Your task to perform on an android device: install app "Roku - Official Remote Control" Image 0: 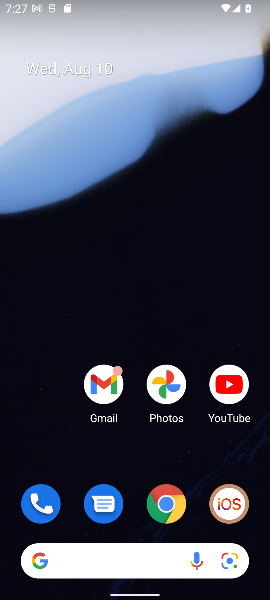
Step 0: drag from (148, 549) to (84, 8)
Your task to perform on an android device: install app "Roku - Official Remote Control" Image 1: 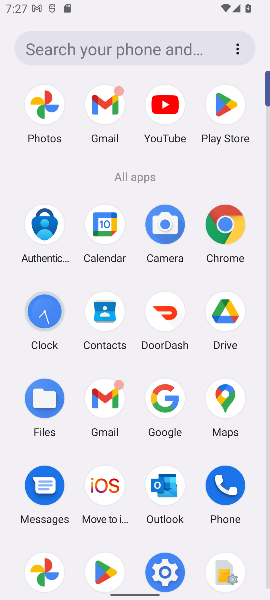
Step 1: click (99, 567)
Your task to perform on an android device: install app "Roku - Official Remote Control" Image 2: 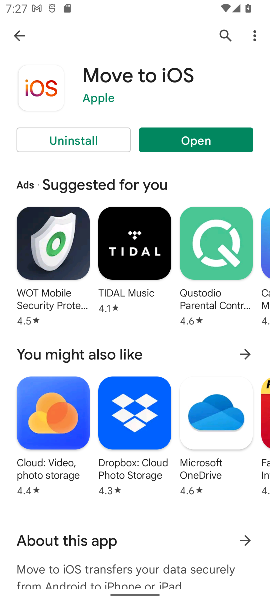
Step 2: click (223, 37)
Your task to perform on an android device: install app "Roku - Official Remote Control" Image 3: 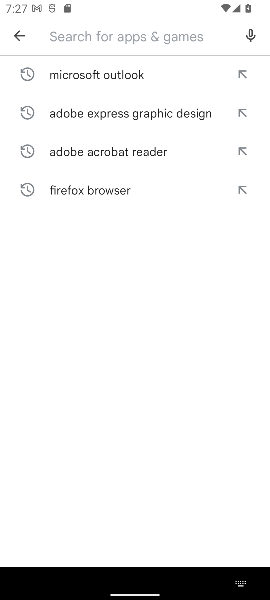
Step 3: type ""
Your task to perform on an android device: install app "Roku - Official Remote Control" Image 4: 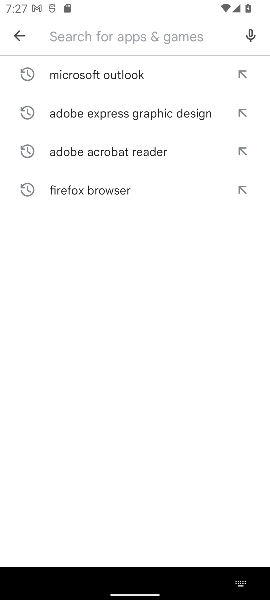
Step 4: type "roku"
Your task to perform on an android device: install app "Roku - Official Remote Control" Image 5: 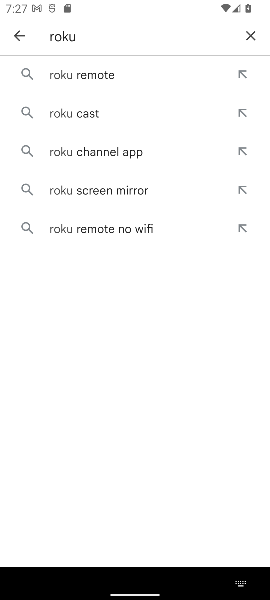
Step 5: click (90, 79)
Your task to perform on an android device: install app "Roku - Official Remote Control" Image 6: 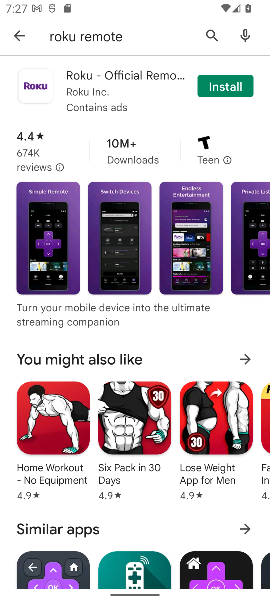
Step 6: click (212, 85)
Your task to perform on an android device: install app "Roku - Official Remote Control" Image 7: 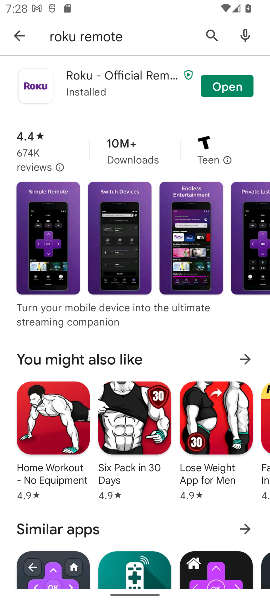
Step 7: task complete